Your task to perform on an android device: set the timer Image 0: 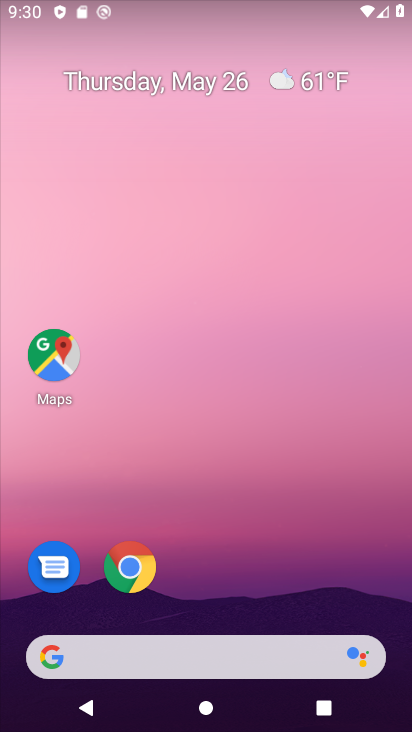
Step 0: drag from (335, 539) to (271, 20)
Your task to perform on an android device: set the timer Image 1: 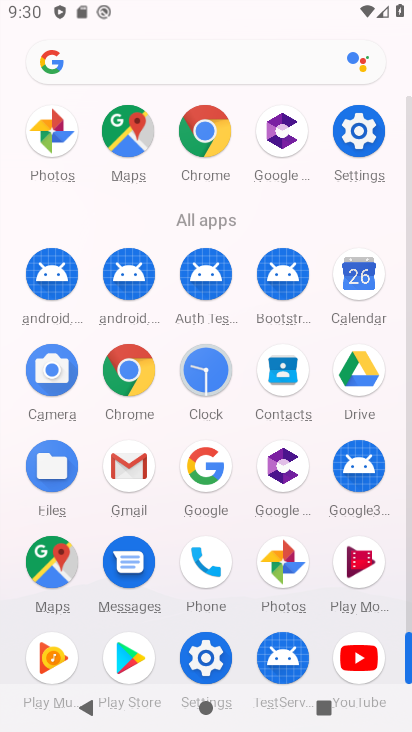
Step 1: click (203, 352)
Your task to perform on an android device: set the timer Image 2: 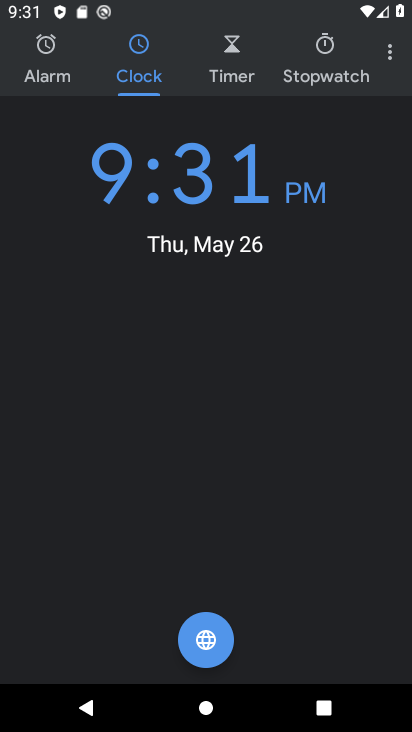
Step 2: click (247, 71)
Your task to perform on an android device: set the timer Image 3: 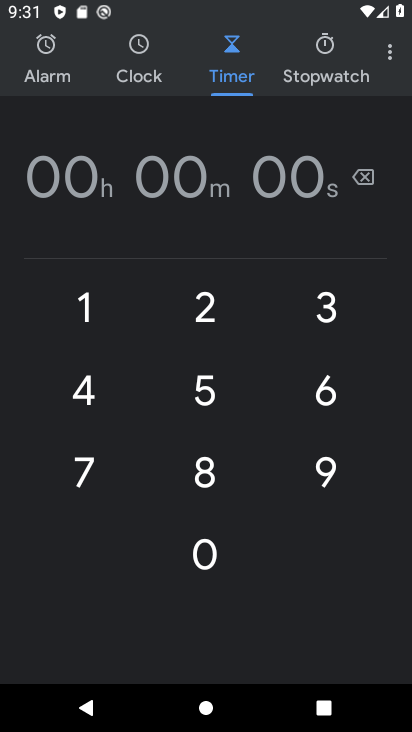
Step 3: task complete